Your task to perform on an android device: Go to Android settings Image 0: 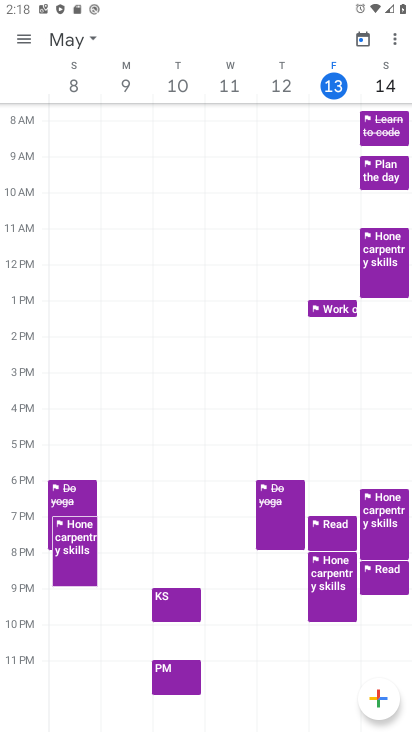
Step 0: press home button
Your task to perform on an android device: Go to Android settings Image 1: 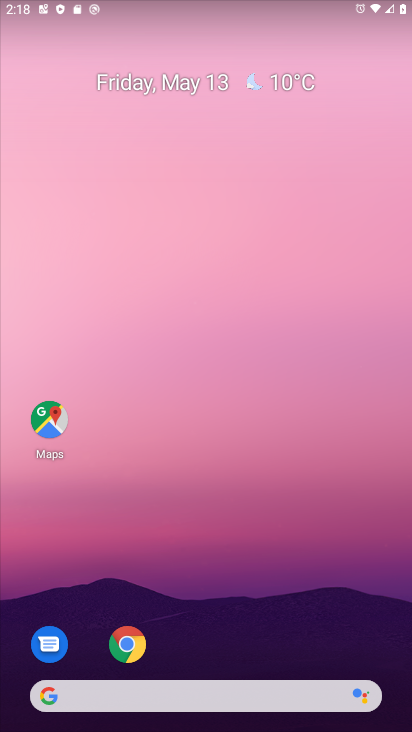
Step 1: drag from (202, 727) to (218, 197)
Your task to perform on an android device: Go to Android settings Image 2: 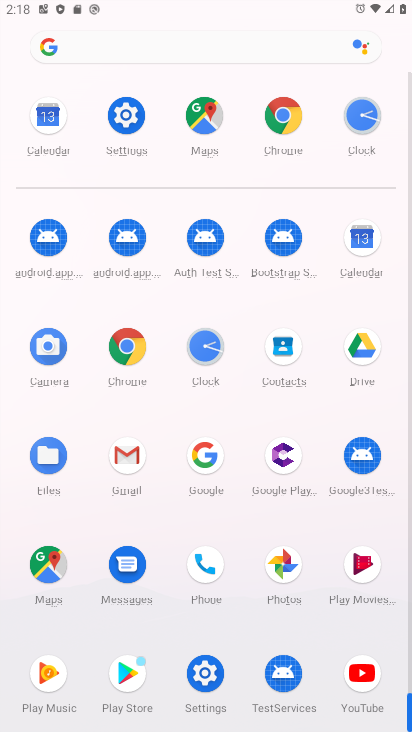
Step 2: click (128, 113)
Your task to perform on an android device: Go to Android settings Image 3: 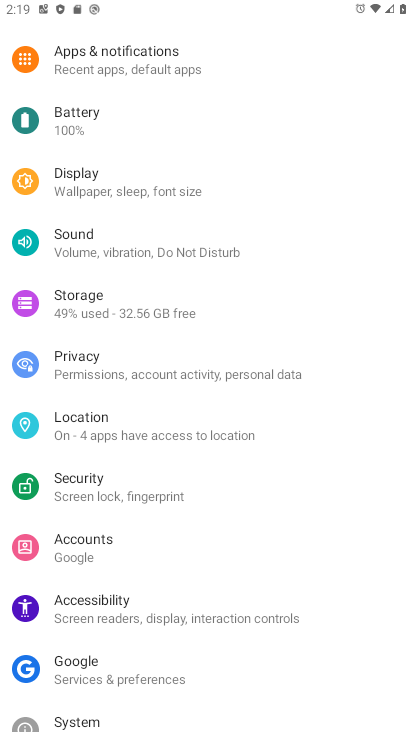
Step 3: task complete